Your task to perform on an android device: Go to Wikipedia Image 0: 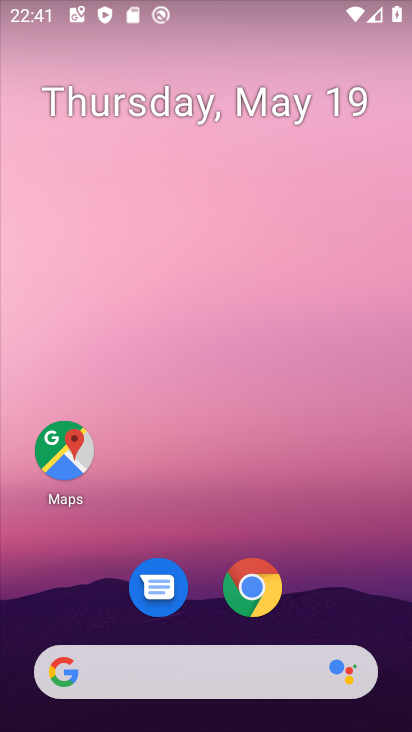
Step 0: drag from (259, 712) to (162, 164)
Your task to perform on an android device: Go to Wikipedia Image 1: 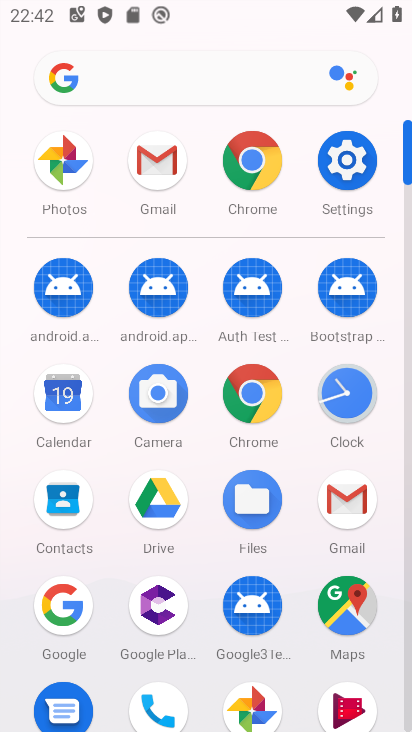
Step 1: click (261, 190)
Your task to perform on an android device: Go to Wikipedia Image 2: 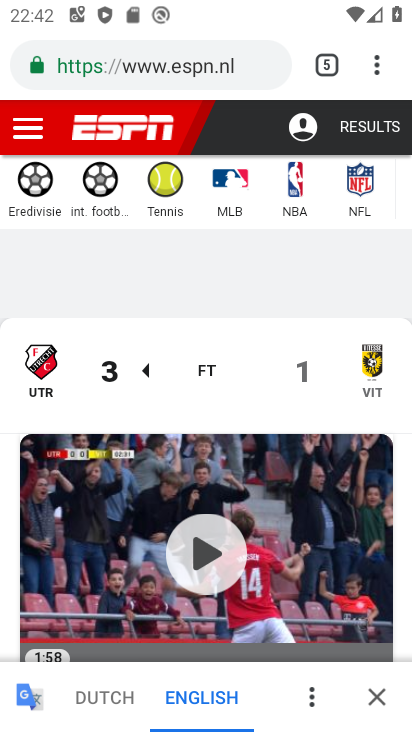
Step 2: click (198, 67)
Your task to perform on an android device: Go to Wikipedia Image 3: 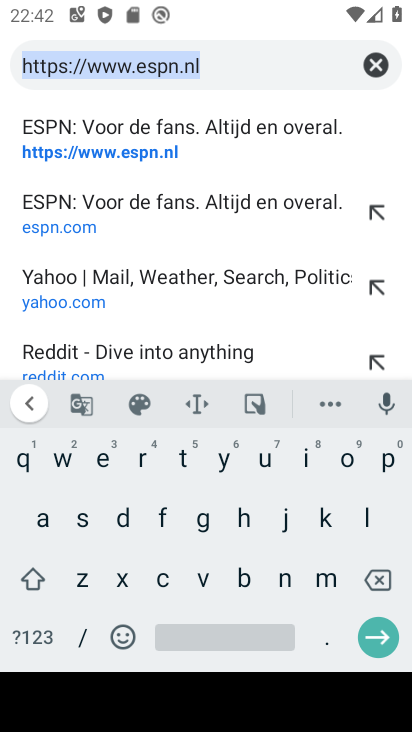
Step 3: click (60, 463)
Your task to perform on an android device: Go to Wikipedia Image 4: 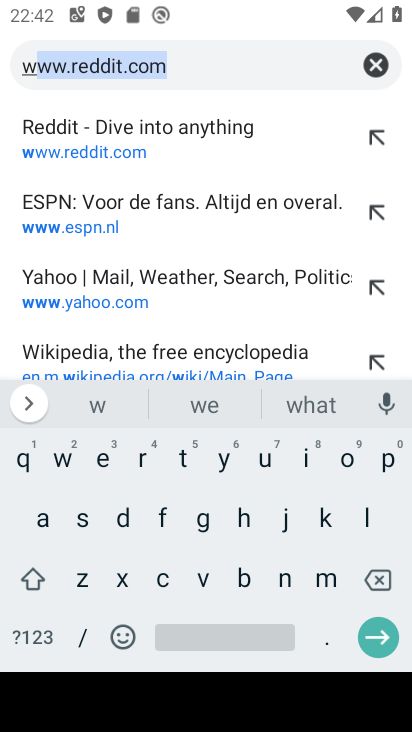
Step 4: click (305, 461)
Your task to perform on an android device: Go to Wikipedia Image 5: 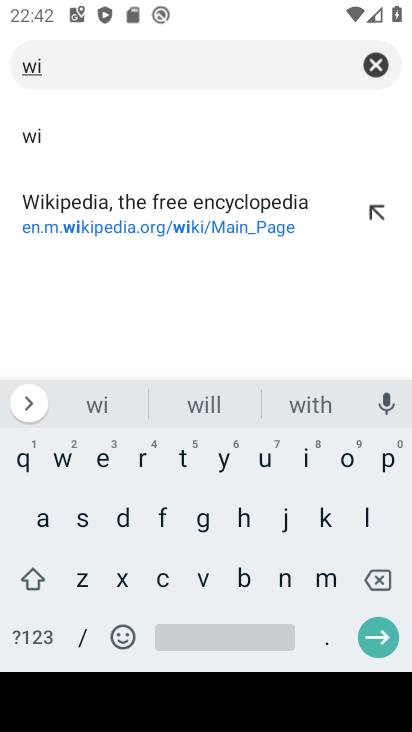
Step 5: click (137, 210)
Your task to perform on an android device: Go to Wikipedia Image 6: 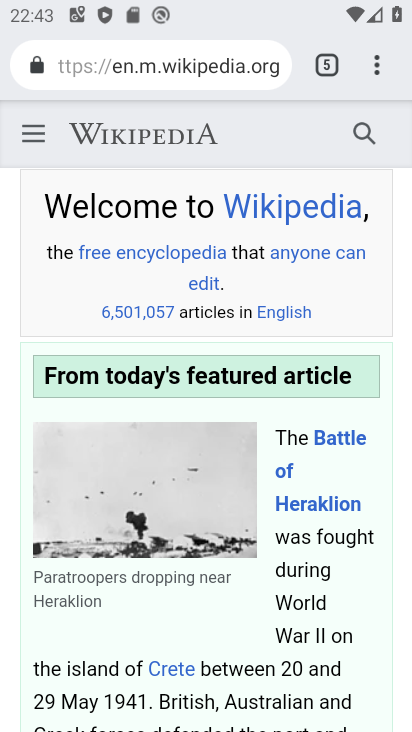
Step 6: task complete